Your task to perform on an android device: Search for Mexican restaurants on Maps Image 0: 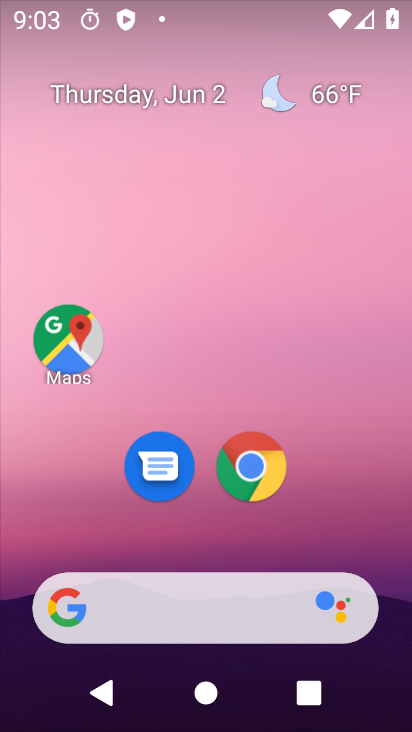
Step 0: click (81, 342)
Your task to perform on an android device: Search for Mexican restaurants on Maps Image 1: 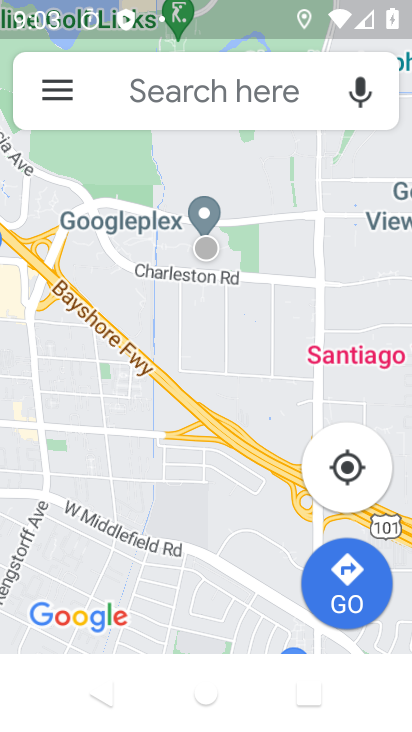
Step 1: click (136, 105)
Your task to perform on an android device: Search for Mexican restaurants on Maps Image 2: 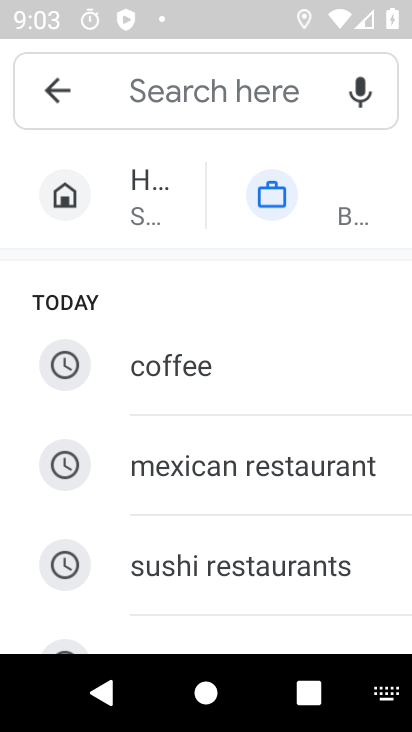
Step 2: click (274, 462)
Your task to perform on an android device: Search for Mexican restaurants on Maps Image 3: 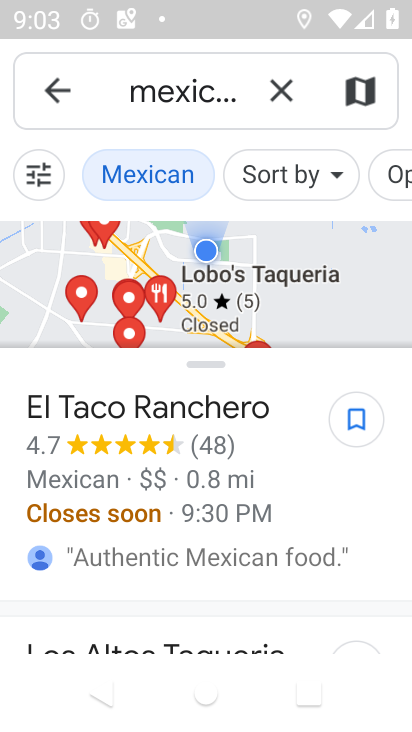
Step 3: task complete